Your task to perform on an android device: Search for sushi restaurants on Maps Image 0: 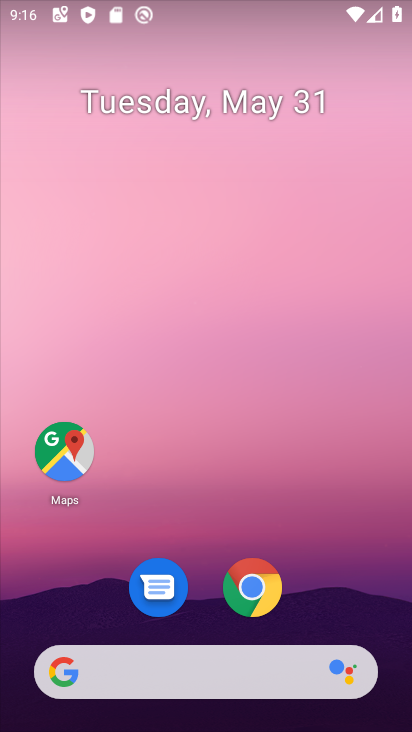
Step 0: click (52, 443)
Your task to perform on an android device: Search for sushi restaurants on Maps Image 1: 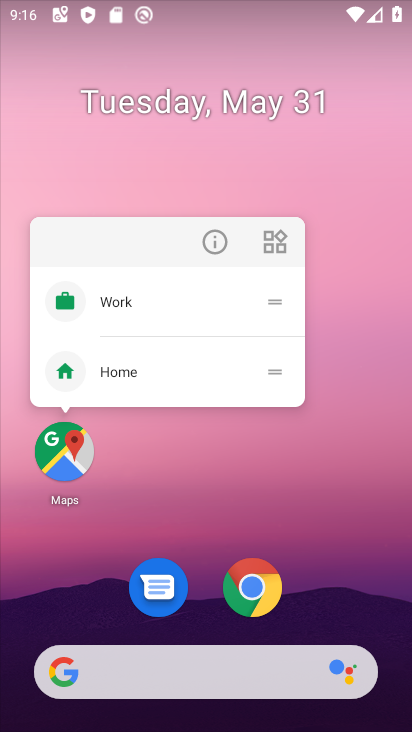
Step 1: click (157, 530)
Your task to perform on an android device: Search for sushi restaurants on Maps Image 2: 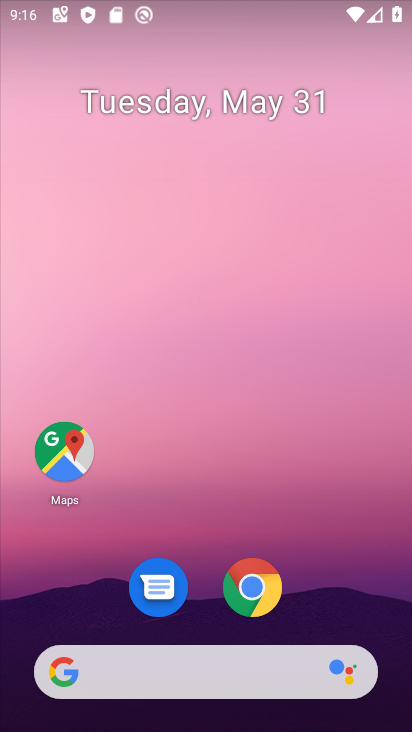
Step 2: drag from (254, 506) to (329, 66)
Your task to perform on an android device: Search for sushi restaurants on Maps Image 3: 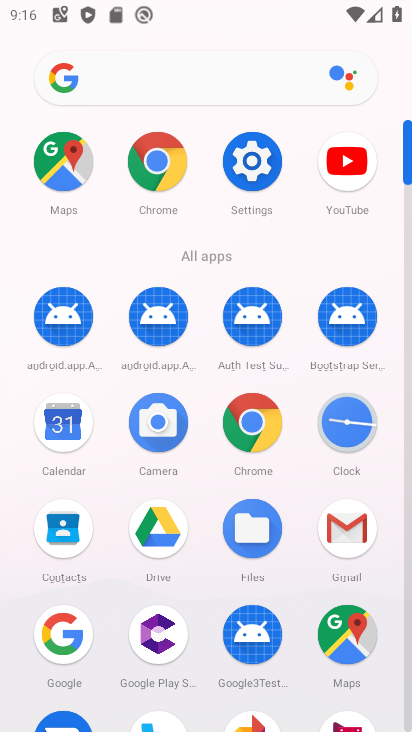
Step 3: click (59, 149)
Your task to perform on an android device: Search for sushi restaurants on Maps Image 4: 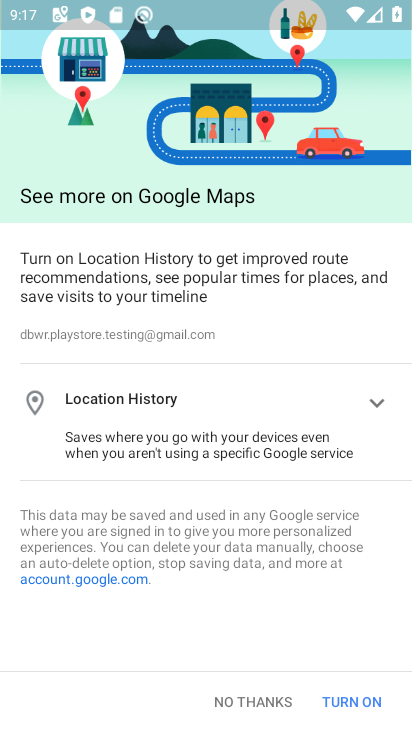
Step 4: click (244, 702)
Your task to perform on an android device: Search for sushi restaurants on Maps Image 5: 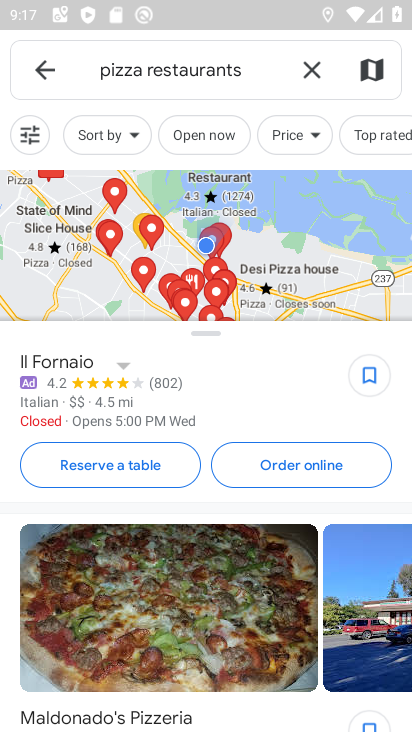
Step 5: click (318, 72)
Your task to perform on an android device: Search for sushi restaurants on Maps Image 6: 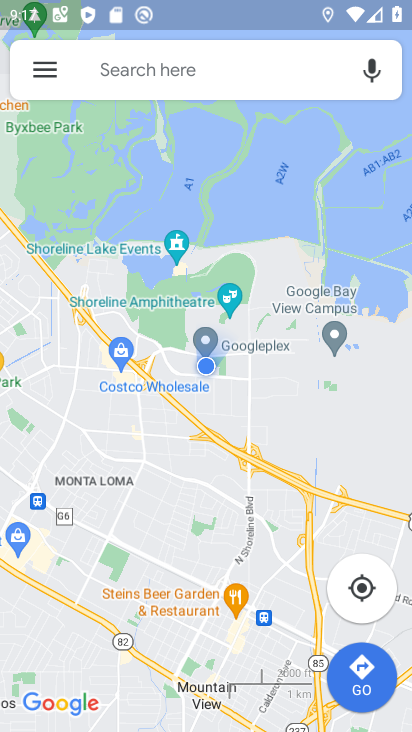
Step 6: click (191, 68)
Your task to perform on an android device: Search for sushi restaurants on Maps Image 7: 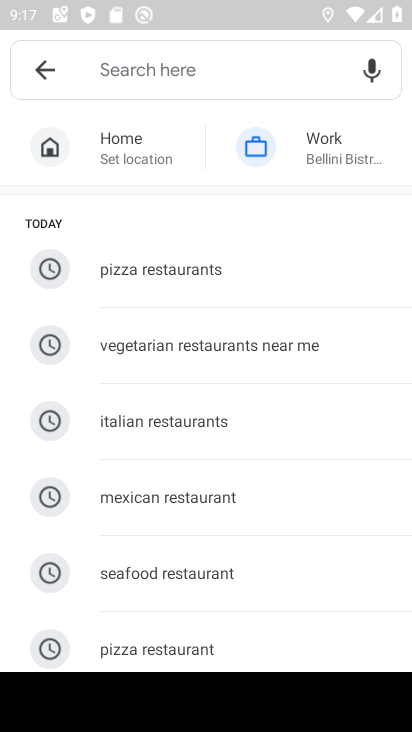
Step 7: type " sushi restaurants"
Your task to perform on an android device: Search for sushi restaurants on Maps Image 8: 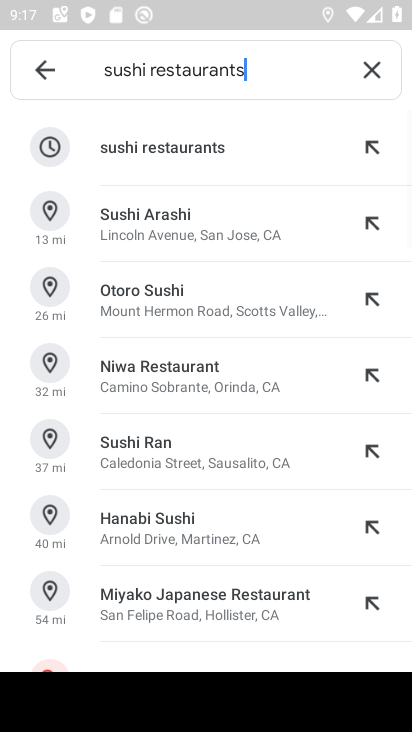
Step 8: click (179, 140)
Your task to perform on an android device: Search for sushi restaurants on Maps Image 9: 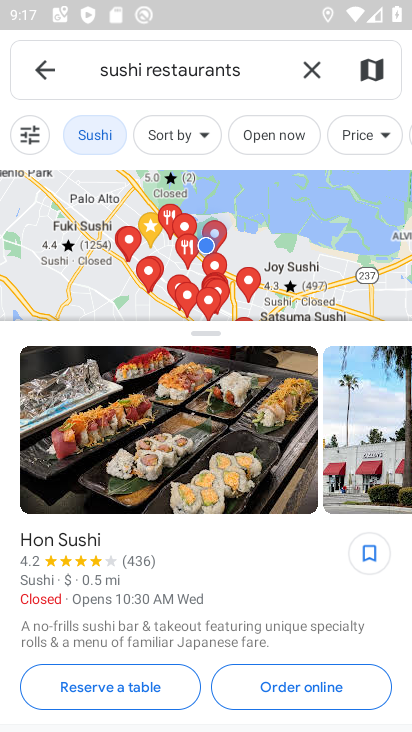
Step 9: task complete